Your task to perform on an android device: change the clock display to show seconds Image 0: 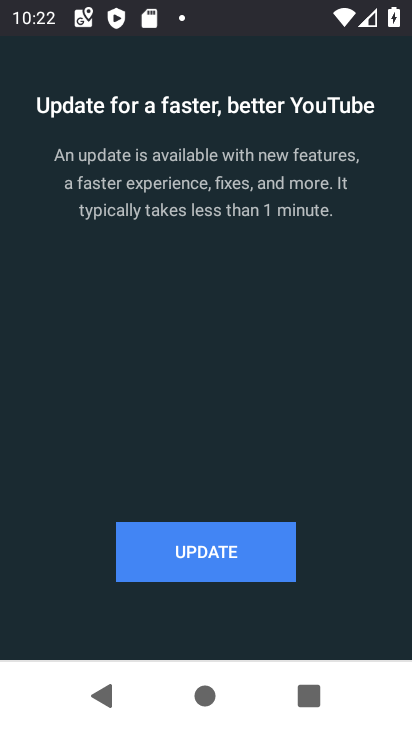
Step 0: press home button
Your task to perform on an android device: change the clock display to show seconds Image 1: 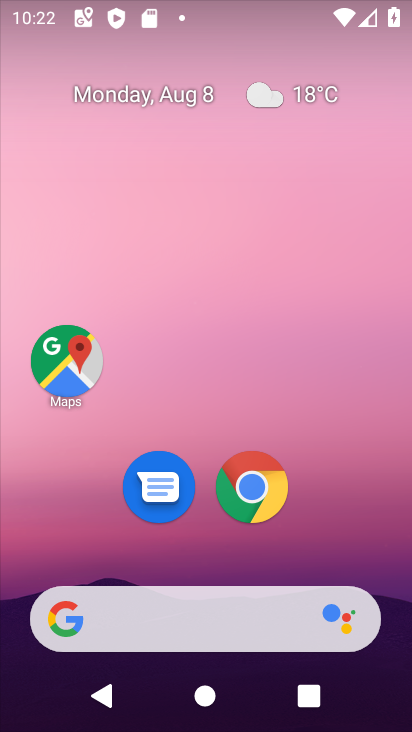
Step 1: drag from (211, 575) to (208, 50)
Your task to perform on an android device: change the clock display to show seconds Image 2: 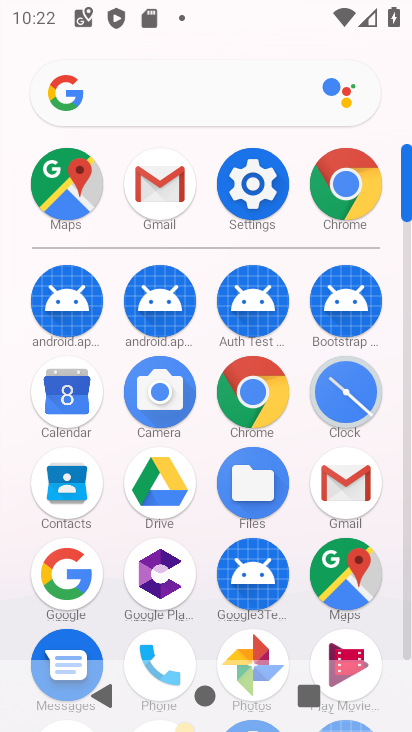
Step 2: click (353, 390)
Your task to perform on an android device: change the clock display to show seconds Image 3: 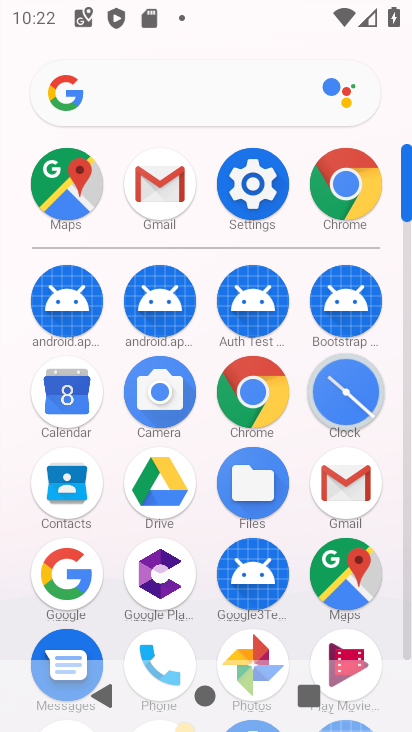
Step 3: click (353, 390)
Your task to perform on an android device: change the clock display to show seconds Image 4: 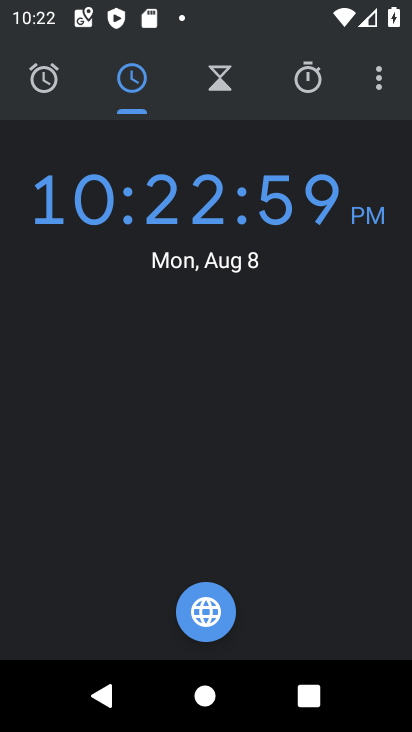
Step 4: click (381, 86)
Your task to perform on an android device: change the clock display to show seconds Image 5: 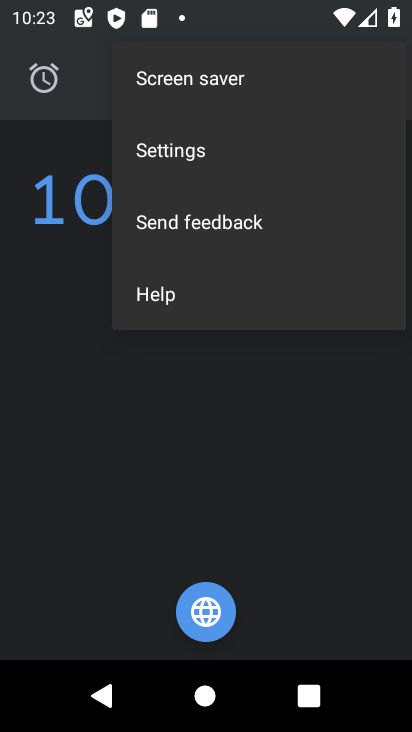
Step 5: click (183, 146)
Your task to perform on an android device: change the clock display to show seconds Image 6: 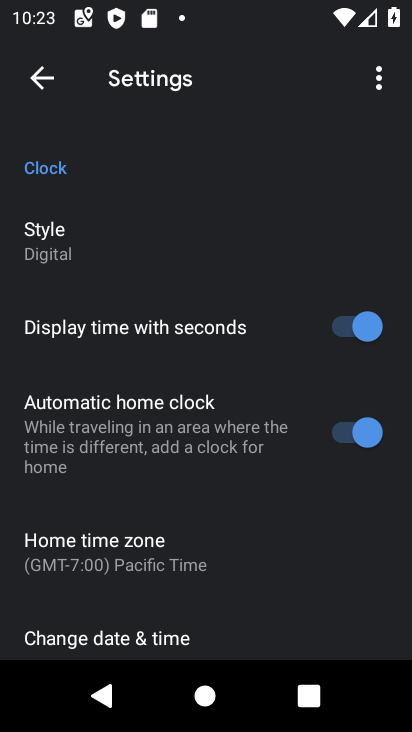
Step 6: task complete